Your task to perform on an android device: change keyboard looks Image 0: 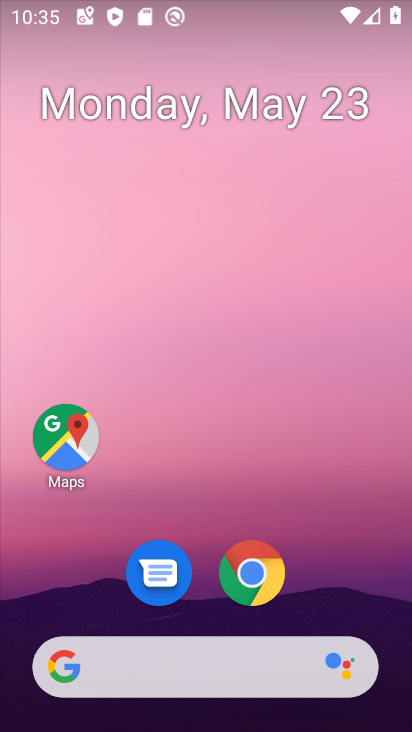
Step 0: drag from (198, 670) to (265, 171)
Your task to perform on an android device: change keyboard looks Image 1: 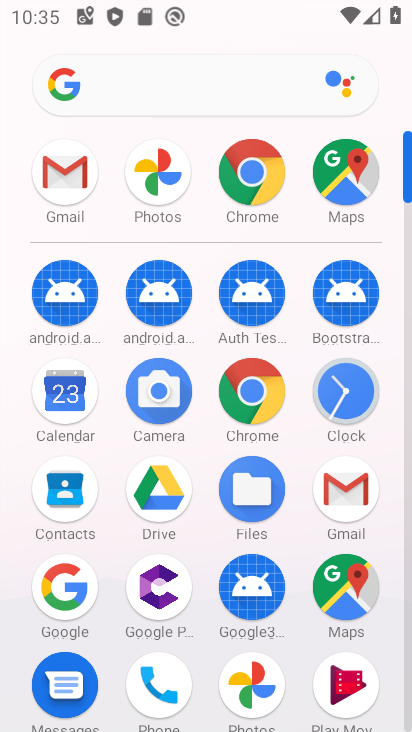
Step 1: drag from (250, 467) to (295, 205)
Your task to perform on an android device: change keyboard looks Image 2: 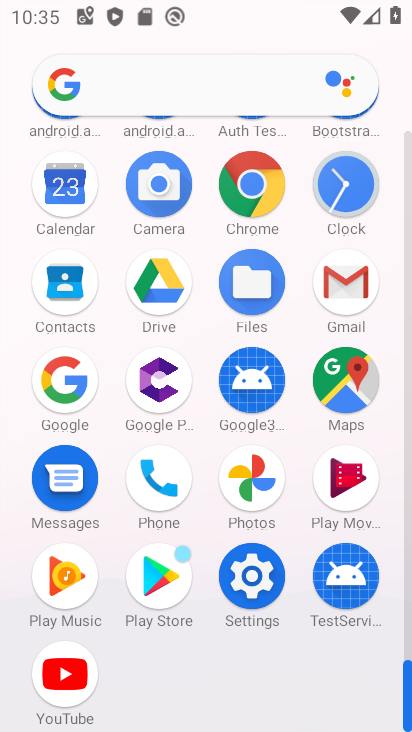
Step 2: click (257, 589)
Your task to perform on an android device: change keyboard looks Image 3: 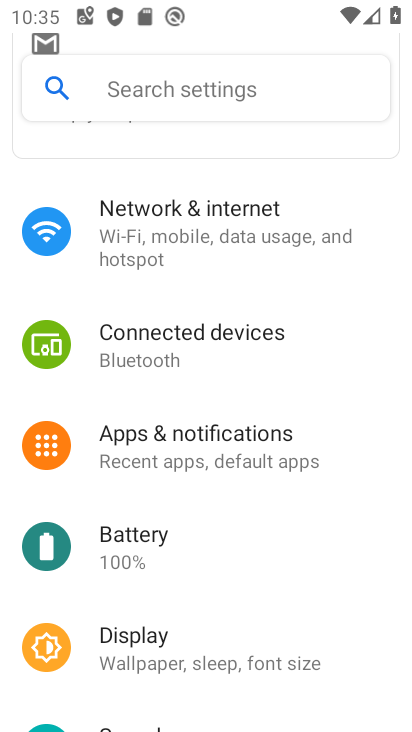
Step 3: drag from (217, 590) to (265, 291)
Your task to perform on an android device: change keyboard looks Image 4: 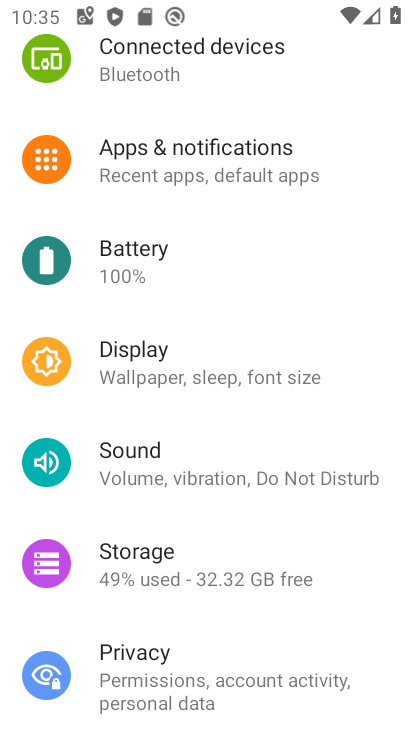
Step 4: drag from (210, 590) to (253, 314)
Your task to perform on an android device: change keyboard looks Image 5: 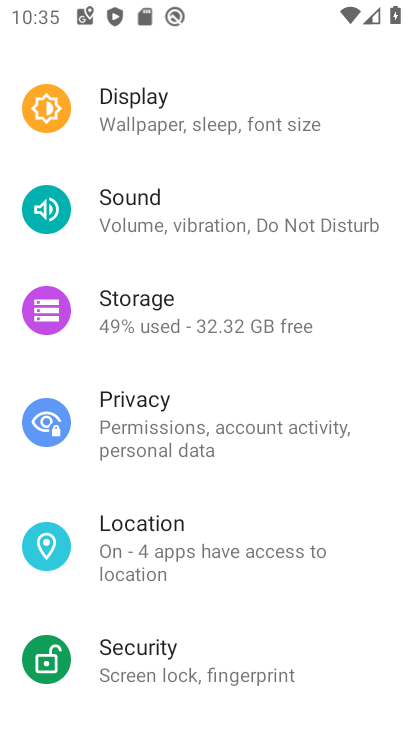
Step 5: drag from (223, 551) to (267, 241)
Your task to perform on an android device: change keyboard looks Image 6: 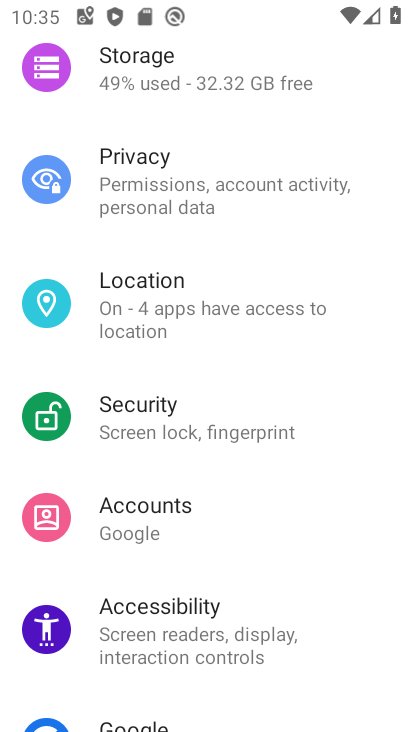
Step 6: drag from (203, 562) to (261, 221)
Your task to perform on an android device: change keyboard looks Image 7: 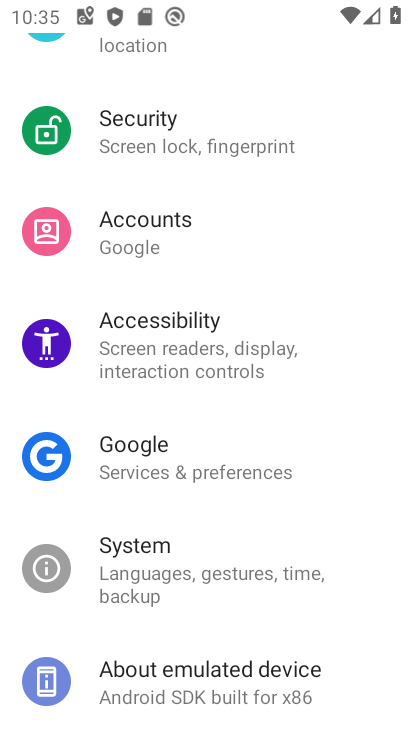
Step 7: drag from (201, 552) to (247, 345)
Your task to perform on an android device: change keyboard looks Image 8: 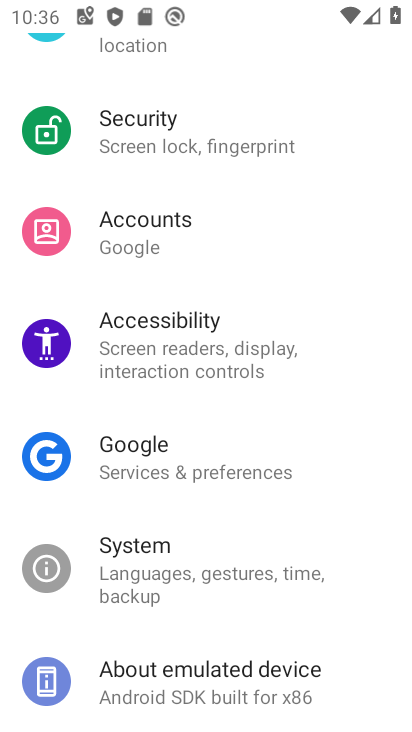
Step 8: click (204, 577)
Your task to perform on an android device: change keyboard looks Image 9: 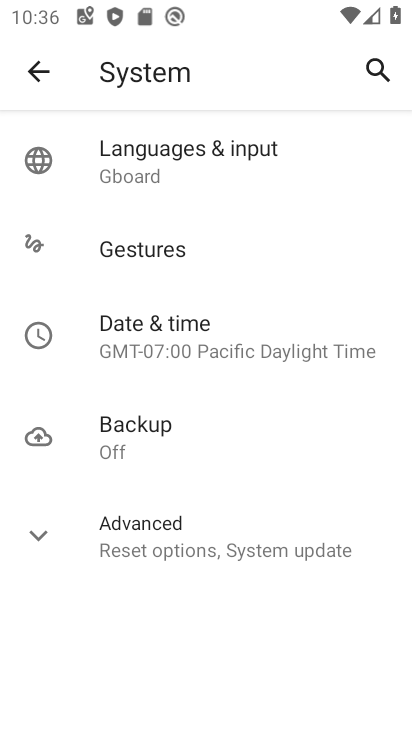
Step 9: click (209, 168)
Your task to perform on an android device: change keyboard looks Image 10: 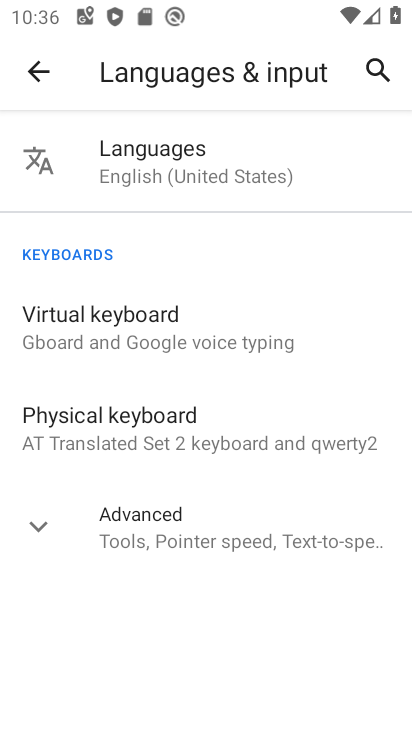
Step 10: click (162, 321)
Your task to perform on an android device: change keyboard looks Image 11: 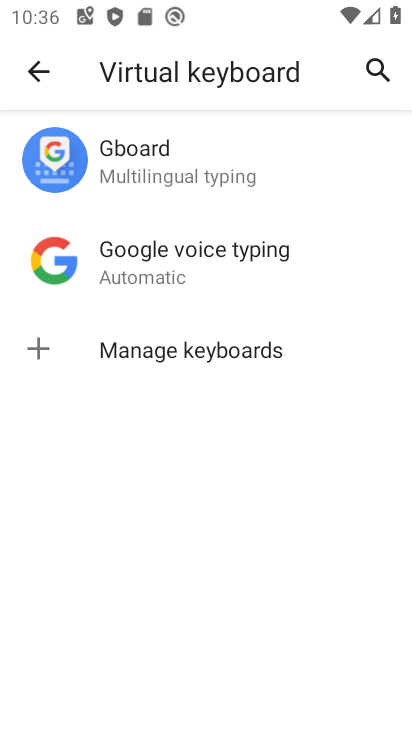
Step 11: click (193, 185)
Your task to perform on an android device: change keyboard looks Image 12: 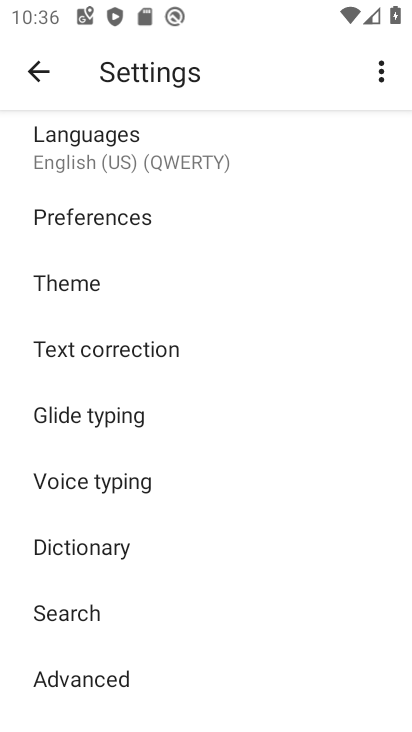
Step 12: click (98, 281)
Your task to perform on an android device: change keyboard looks Image 13: 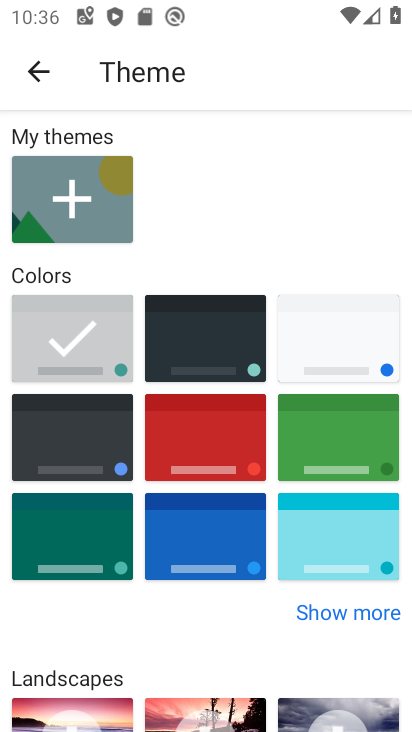
Step 13: click (350, 325)
Your task to perform on an android device: change keyboard looks Image 14: 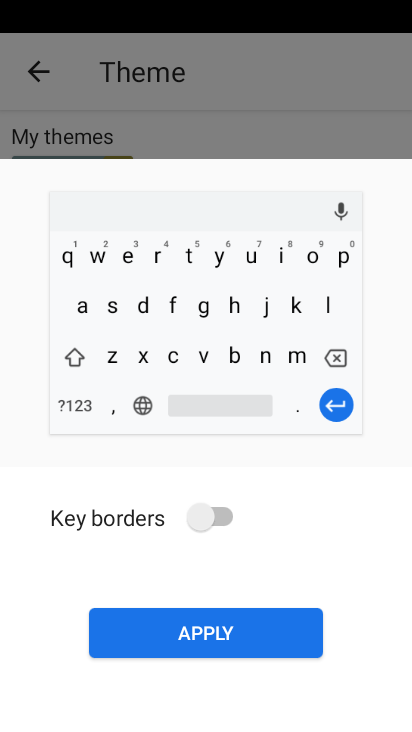
Step 14: click (239, 638)
Your task to perform on an android device: change keyboard looks Image 15: 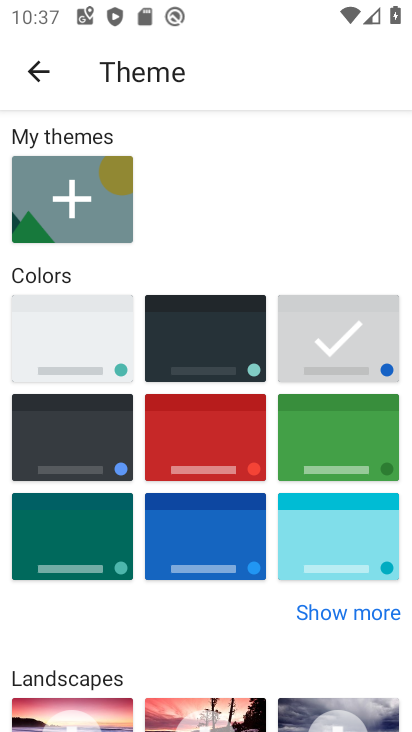
Step 15: task complete